Your task to perform on an android device: snooze an email in the gmail app Image 0: 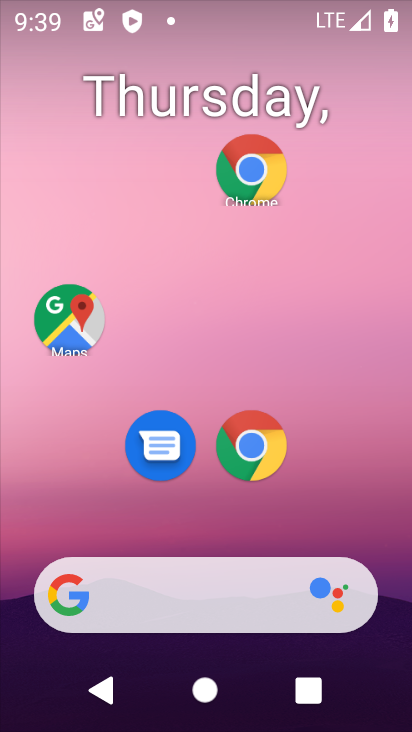
Step 0: drag from (150, 109) to (275, 49)
Your task to perform on an android device: snooze an email in the gmail app Image 1: 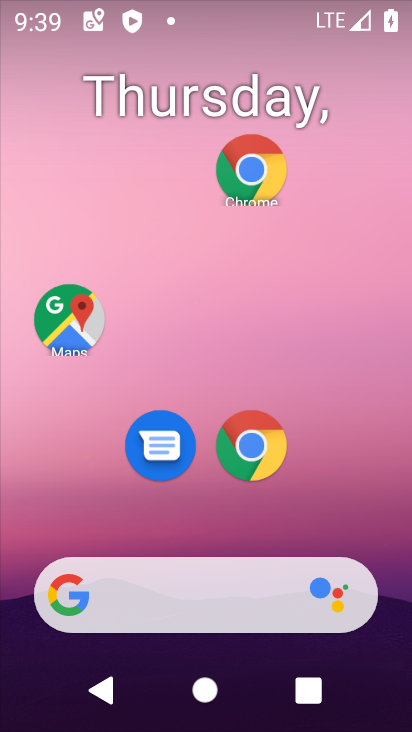
Step 1: drag from (217, 495) to (240, 0)
Your task to perform on an android device: snooze an email in the gmail app Image 2: 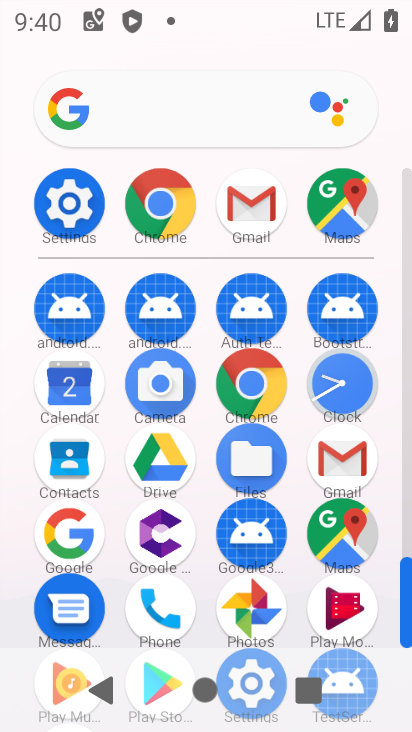
Step 2: click (354, 464)
Your task to perform on an android device: snooze an email in the gmail app Image 3: 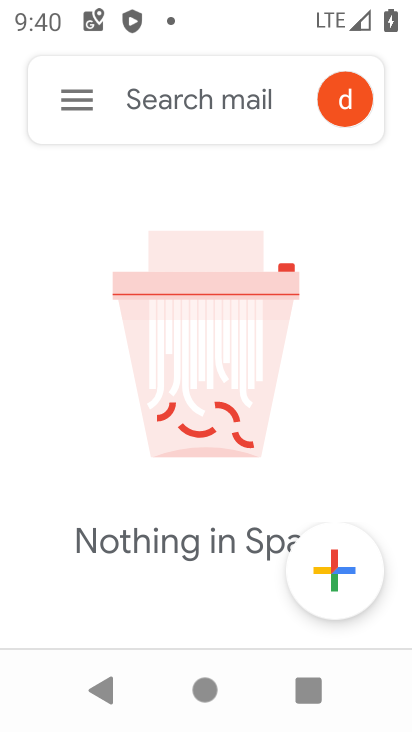
Step 3: click (82, 82)
Your task to perform on an android device: snooze an email in the gmail app Image 4: 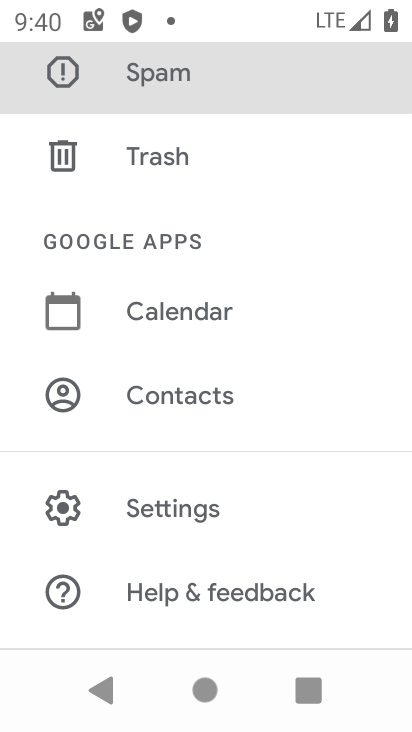
Step 4: drag from (168, 113) to (187, 583)
Your task to perform on an android device: snooze an email in the gmail app Image 5: 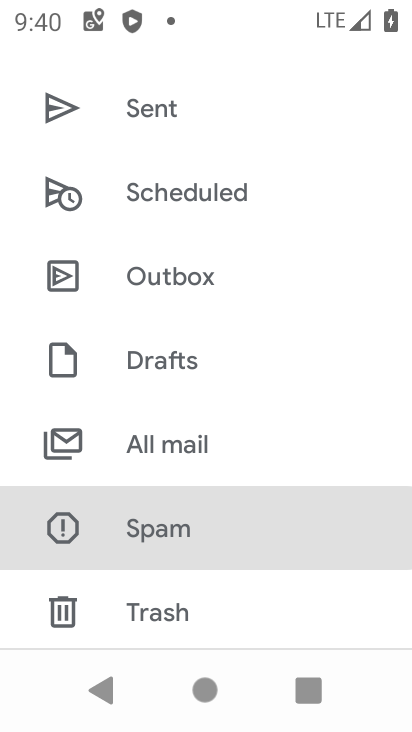
Step 5: drag from (211, 194) to (213, 633)
Your task to perform on an android device: snooze an email in the gmail app Image 6: 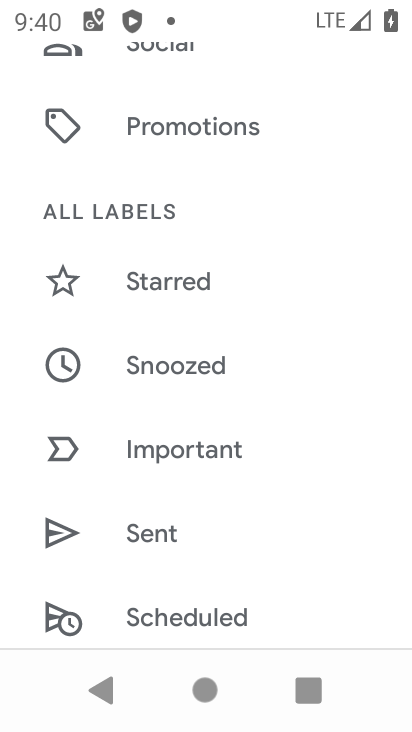
Step 6: drag from (202, 582) to (192, 406)
Your task to perform on an android device: snooze an email in the gmail app Image 7: 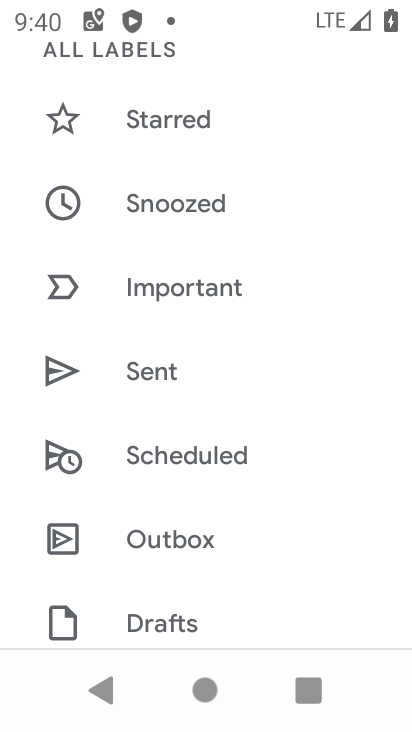
Step 7: click (196, 481)
Your task to perform on an android device: snooze an email in the gmail app Image 8: 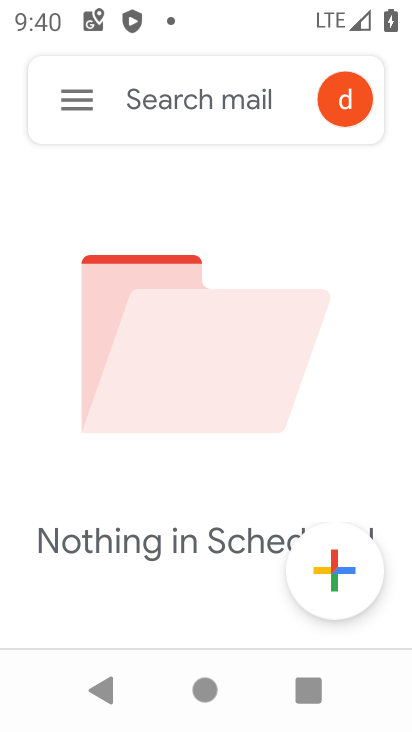
Step 8: task complete